Your task to perform on an android device: open sync settings in chrome Image 0: 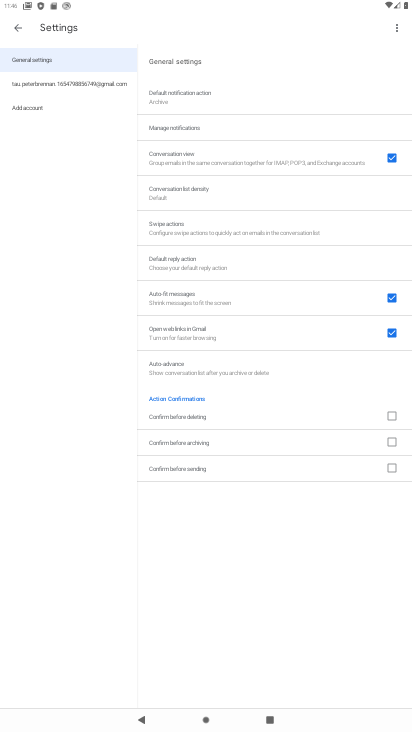
Step 0: press home button
Your task to perform on an android device: open sync settings in chrome Image 1: 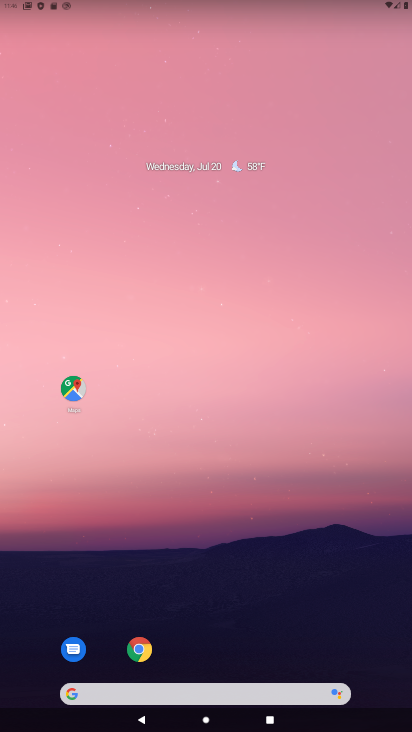
Step 1: click (137, 650)
Your task to perform on an android device: open sync settings in chrome Image 2: 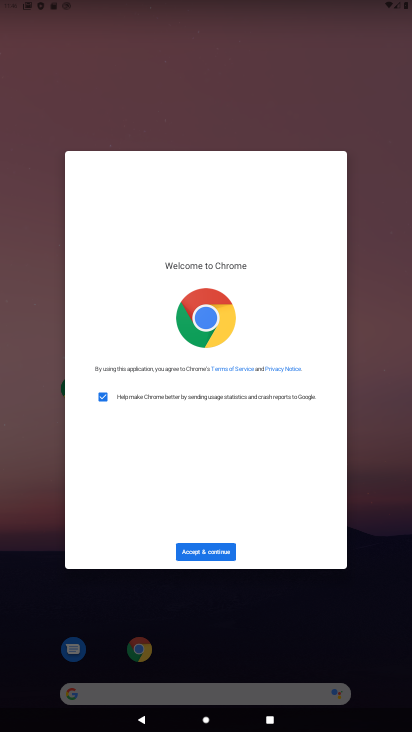
Step 2: click (197, 557)
Your task to perform on an android device: open sync settings in chrome Image 3: 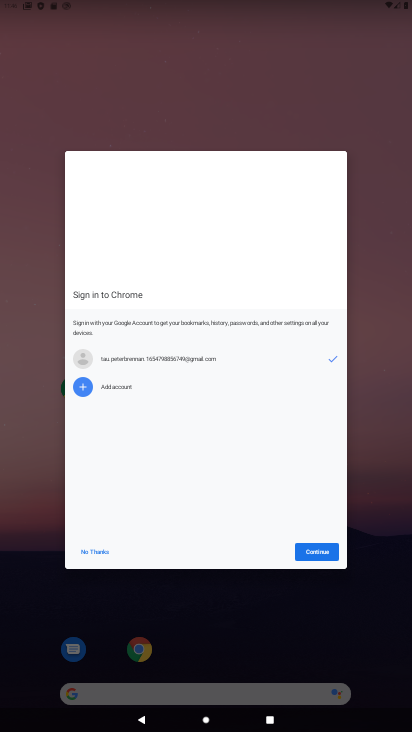
Step 3: click (315, 552)
Your task to perform on an android device: open sync settings in chrome Image 4: 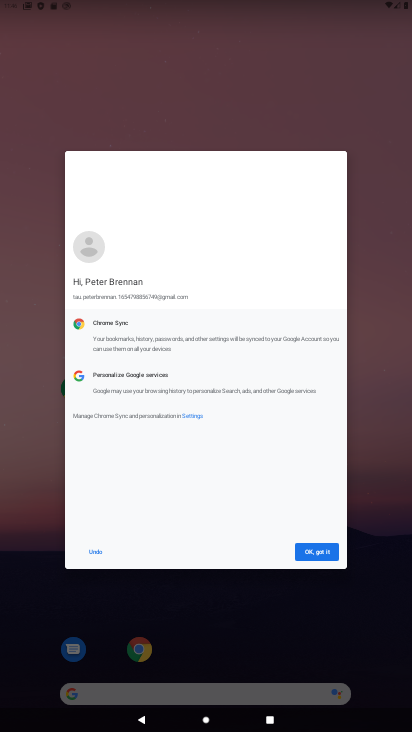
Step 4: click (315, 552)
Your task to perform on an android device: open sync settings in chrome Image 5: 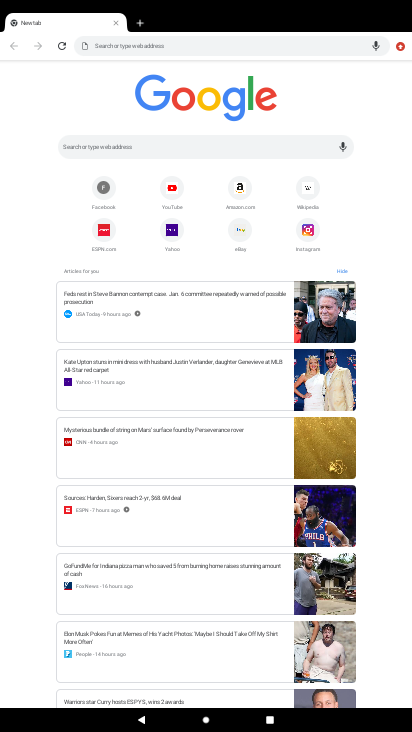
Step 5: click (398, 47)
Your task to perform on an android device: open sync settings in chrome Image 6: 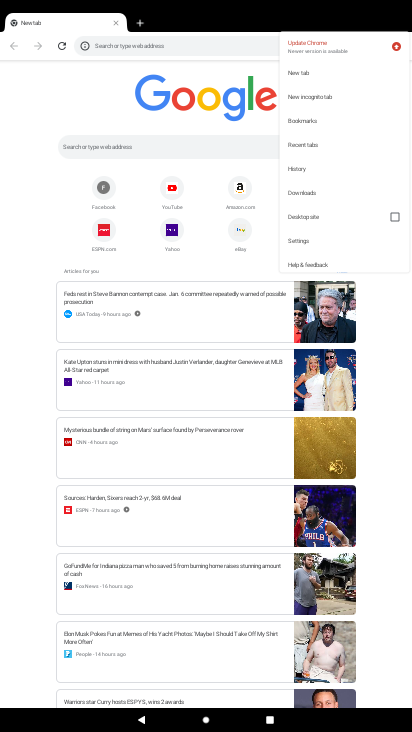
Step 6: click (291, 241)
Your task to perform on an android device: open sync settings in chrome Image 7: 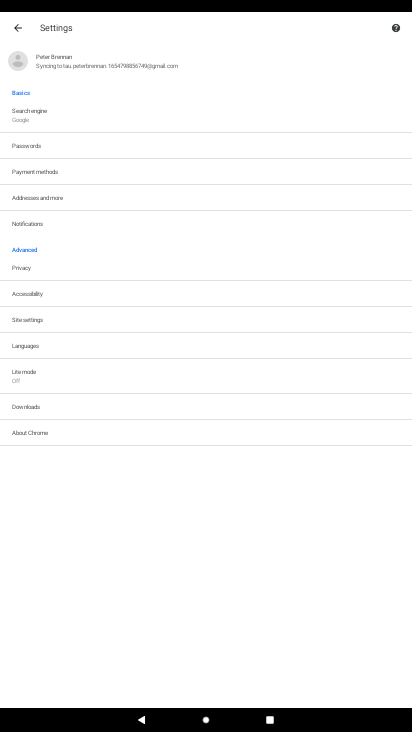
Step 7: click (53, 317)
Your task to perform on an android device: open sync settings in chrome Image 8: 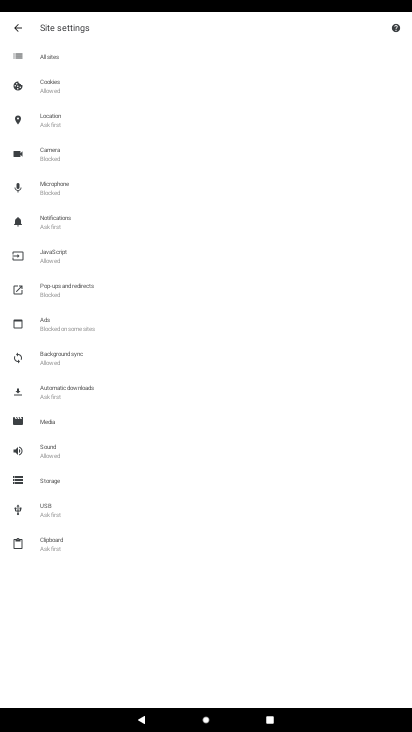
Step 8: click (69, 359)
Your task to perform on an android device: open sync settings in chrome Image 9: 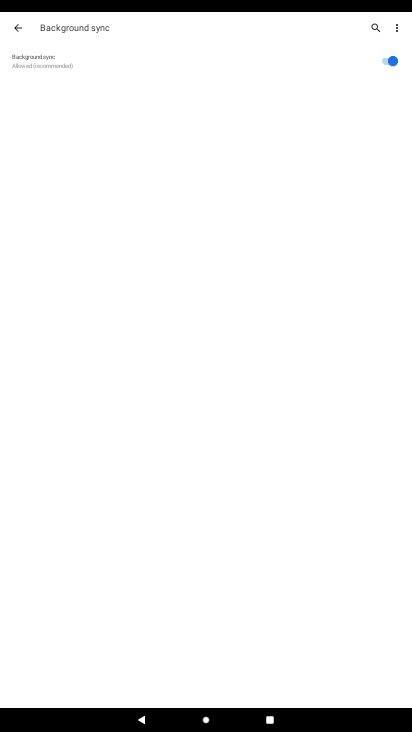
Step 9: task complete